Your task to perform on an android device: Open the phone app and click the voicemail tab. Image 0: 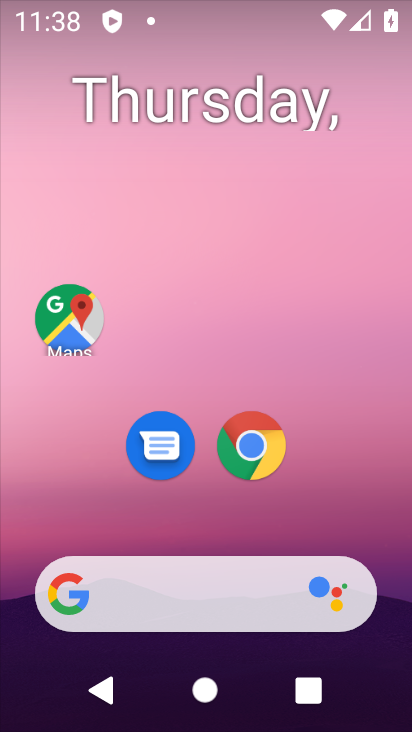
Step 0: drag from (255, 646) to (209, 343)
Your task to perform on an android device: Open the phone app and click the voicemail tab. Image 1: 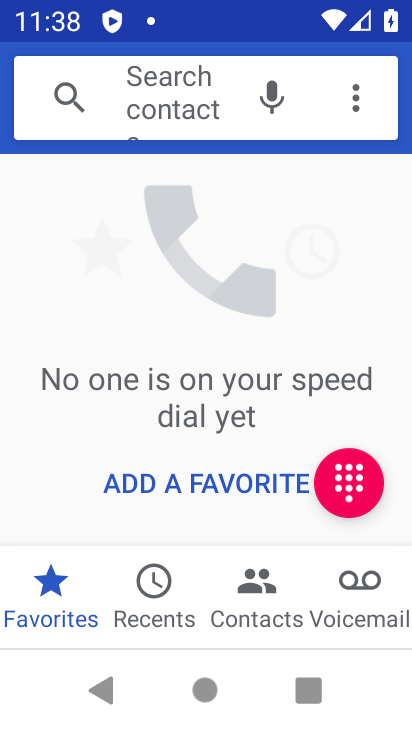
Step 1: click (346, 588)
Your task to perform on an android device: Open the phone app and click the voicemail tab. Image 2: 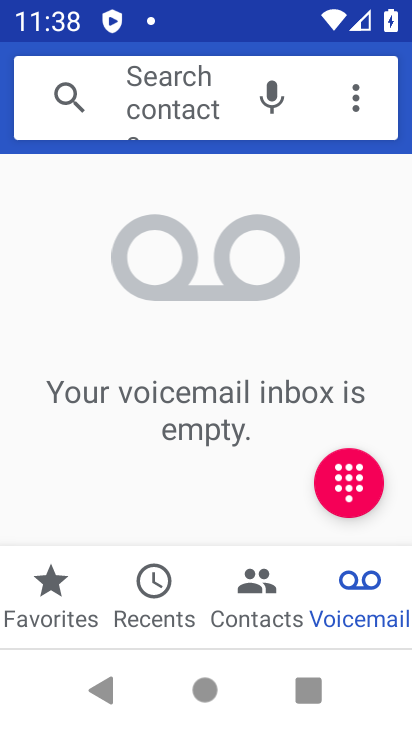
Step 2: task complete